Your task to perform on an android device: turn off sleep mode Image 0: 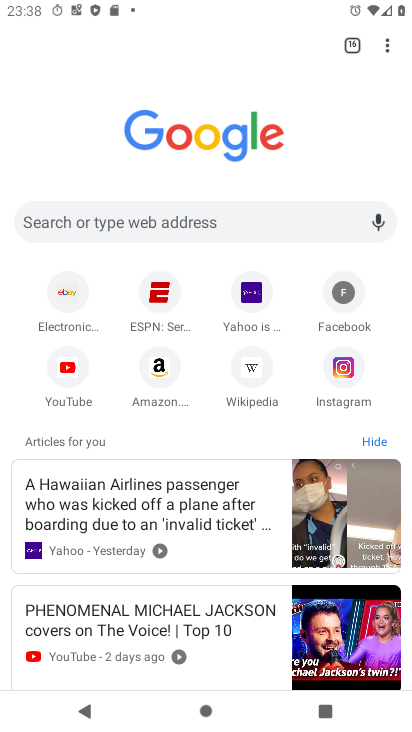
Step 0: press home button
Your task to perform on an android device: turn off sleep mode Image 1: 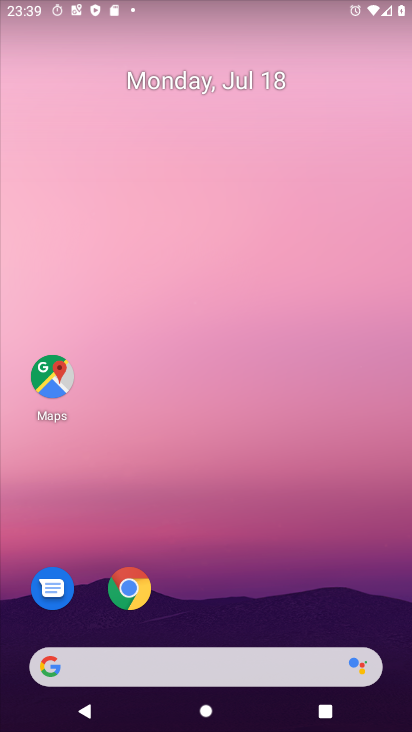
Step 1: drag from (130, 662) to (313, 4)
Your task to perform on an android device: turn off sleep mode Image 2: 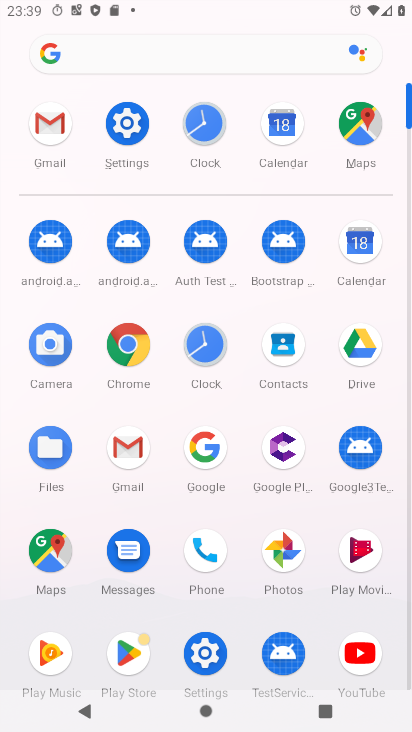
Step 2: click (130, 124)
Your task to perform on an android device: turn off sleep mode Image 3: 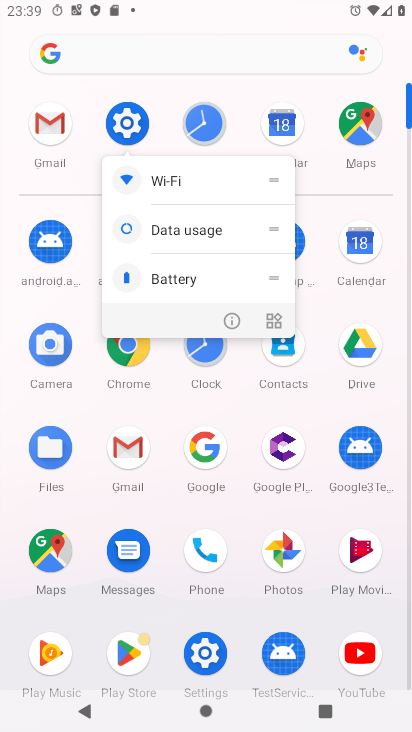
Step 3: click (136, 131)
Your task to perform on an android device: turn off sleep mode Image 4: 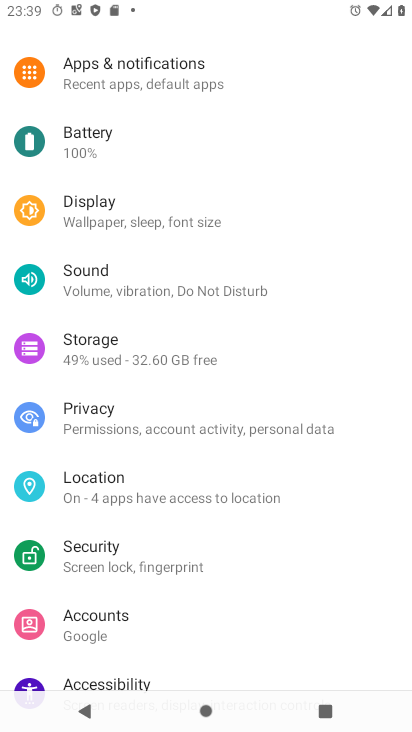
Step 4: click (159, 219)
Your task to perform on an android device: turn off sleep mode Image 5: 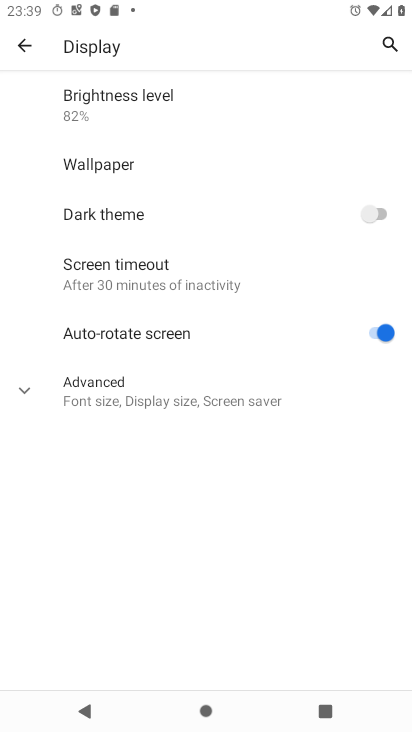
Step 5: click (106, 381)
Your task to perform on an android device: turn off sleep mode Image 6: 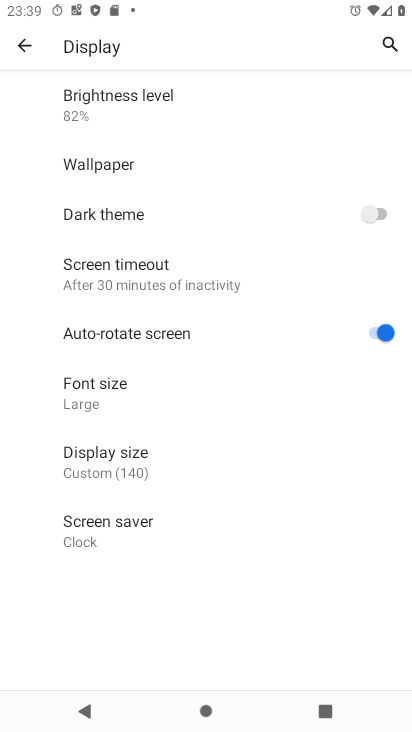
Step 6: task complete